Your task to perform on an android device: show emergency info Image 0: 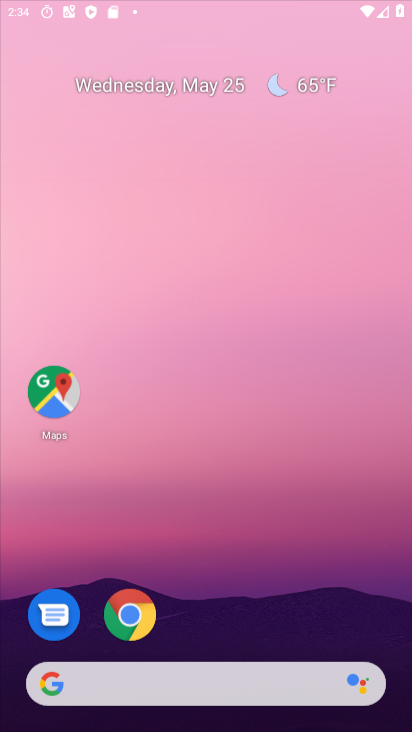
Step 0: click (130, 614)
Your task to perform on an android device: show emergency info Image 1: 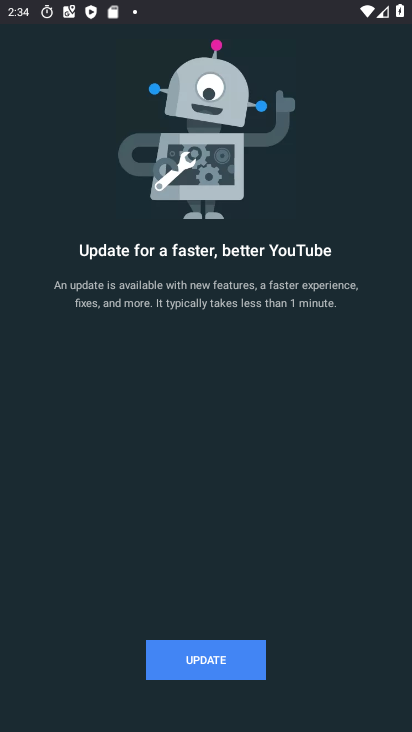
Step 1: press back button
Your task to perform on an android device: show emergency info Image 2: 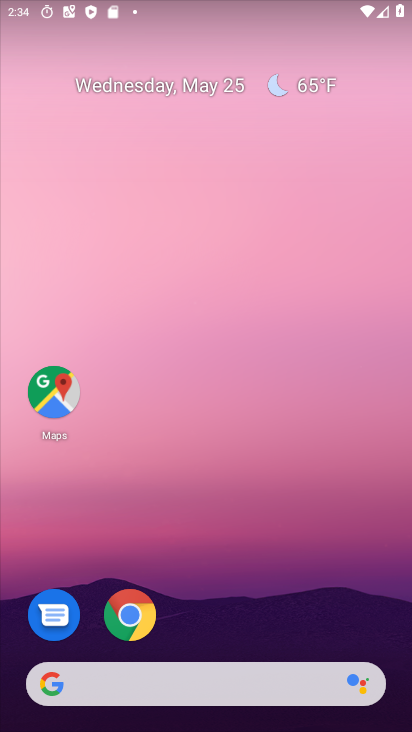
Step 2: drag from (402, 679) to (411, 1)
Your task to perform on an android device: show emergency info Image 3: 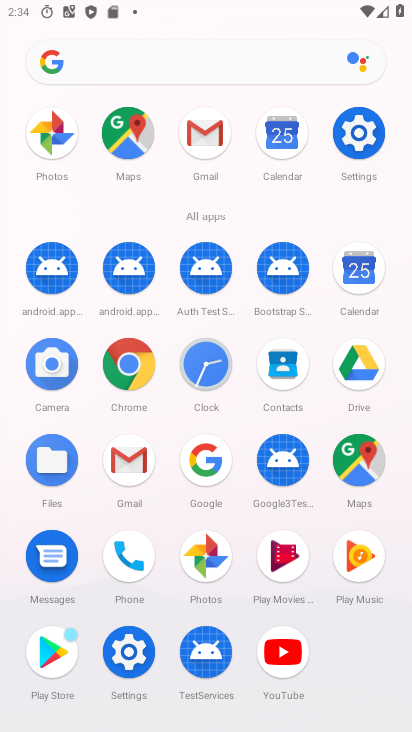
Step 3: click (390, 86)
Your task to perform on an android device: show emergency info Image 4: 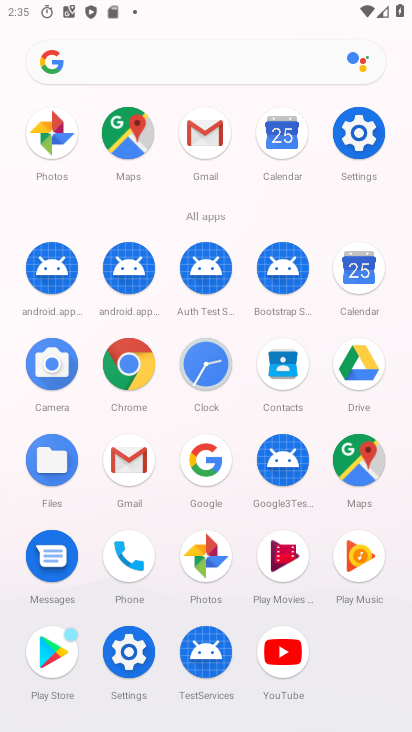
Step 4: click (372, 130)
Your task to perform on an android device: show emergency info Image 5: 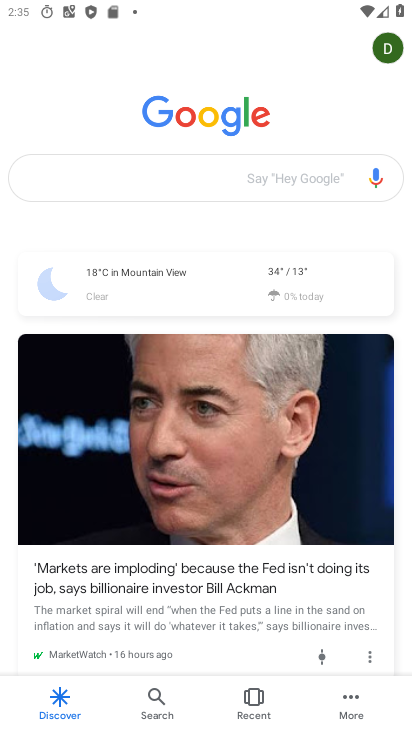
Step 5: press back button
Your task to perform on an android device: show emergency info Image 6: 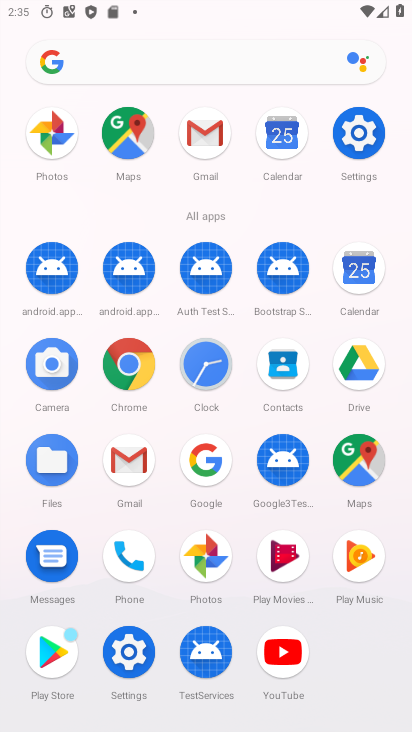
Step 6: click (349, 130)
Your task to perform on an android device: show emergency info Image 7: 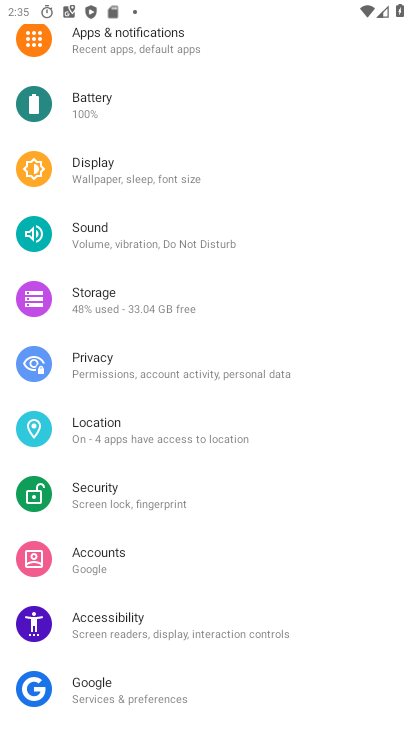
Step 7: drag from (324, 656) to (333, 283)
Your task to perform on an android device: show emergency info Image 8: 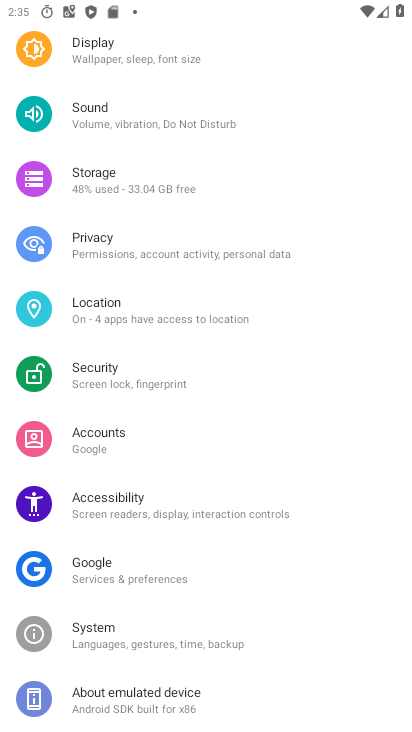
Step 8: click (106, 688)
Your task to perform on an android device: show emergency info Image 9: 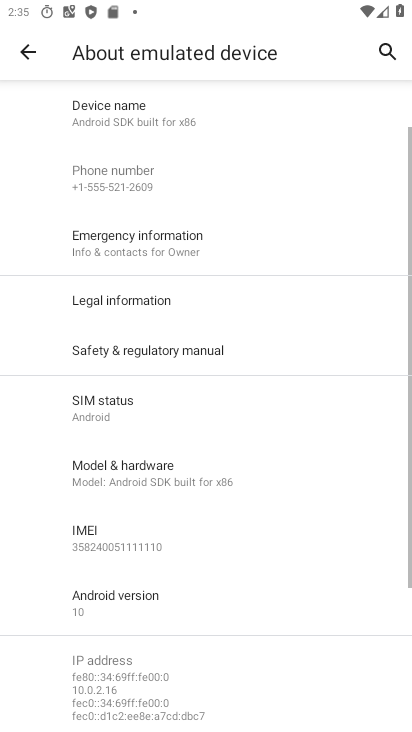
Step 9: click (133, 246)
Your task to perform on an android device: show emergency info Image 10: 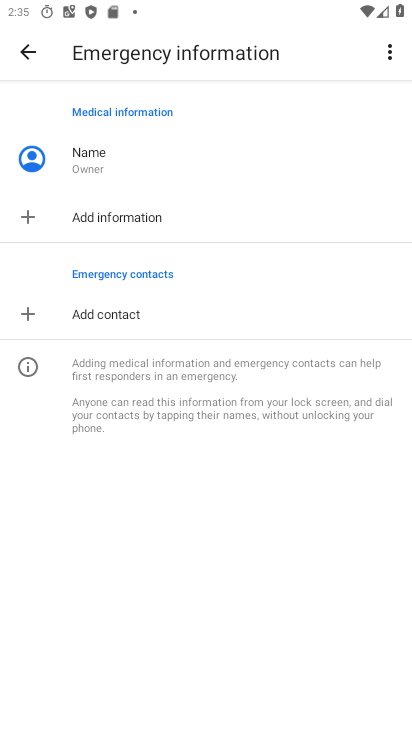
Step 10: task complete